Your task to perform on an android device: turn on showing notifications on the lock screen Image 0: 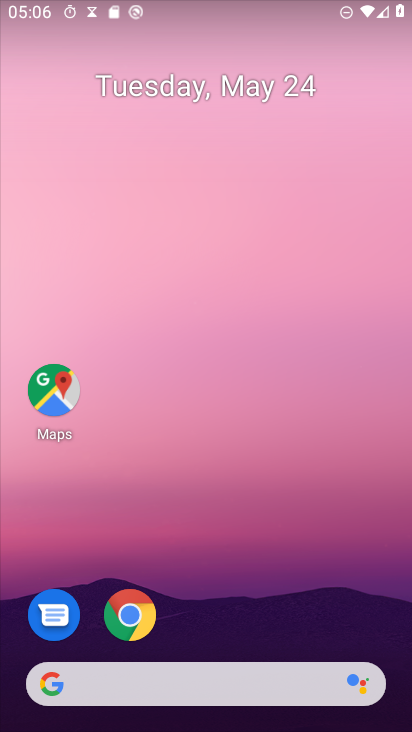
Step 0: drag from (177, 634) to (335, 96)
Your task to perform on an android device: turn on showing notifications on the lock screen Image 1: 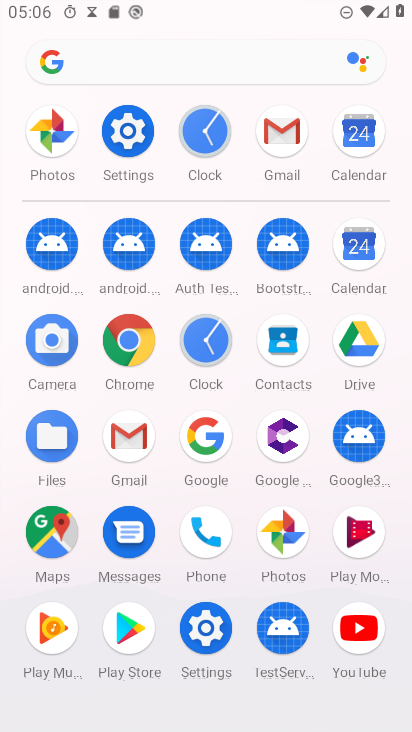
Step 1: click (114, 130)
Your task to perform on an android device: turn on showing notifications on the lock screen Image 2: 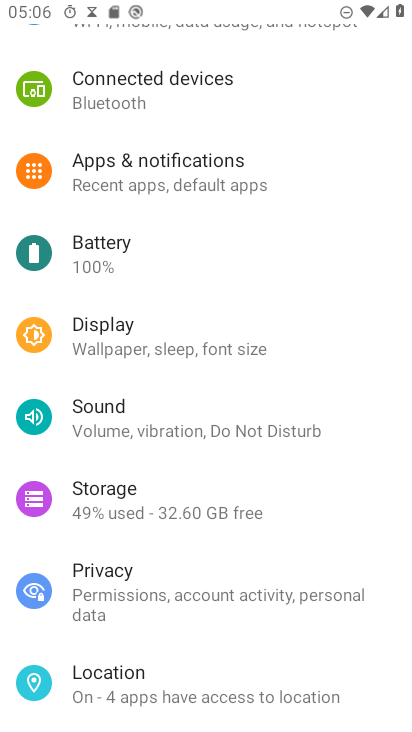
Step 2: click (196, 173)
Your task to perform on an android device: turn on showing notifications on the lock screen Image 3: 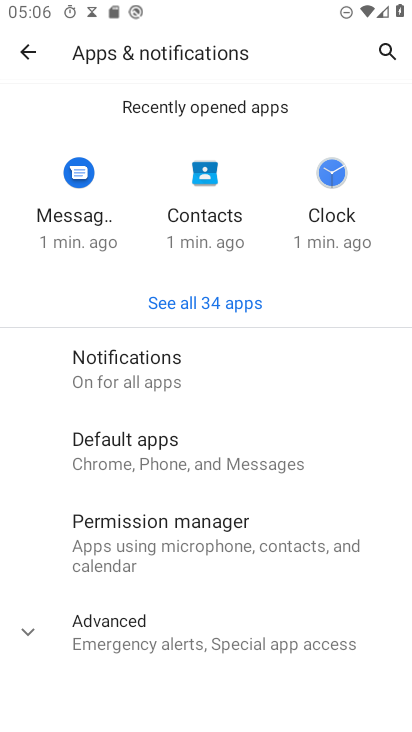
Step 3: click (162, 361)
Your task to perform on an android device: turn on showing notifications on the lock screen Image 4: 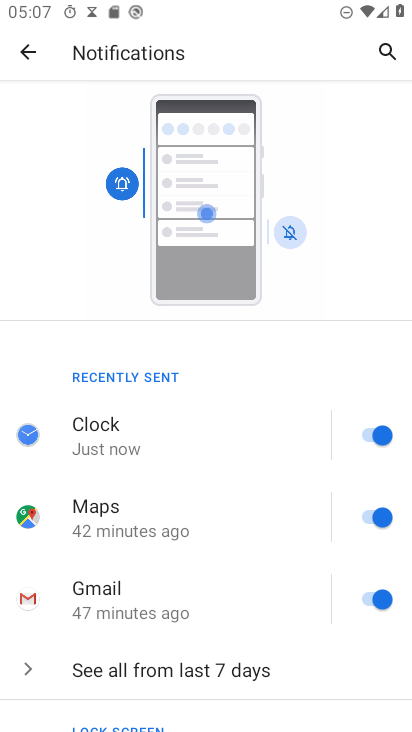
Step 4: drag from (199, 566) to (272, 135)
Your task to perform on an android device: turn on showing notifications on the lock screen Image 5: 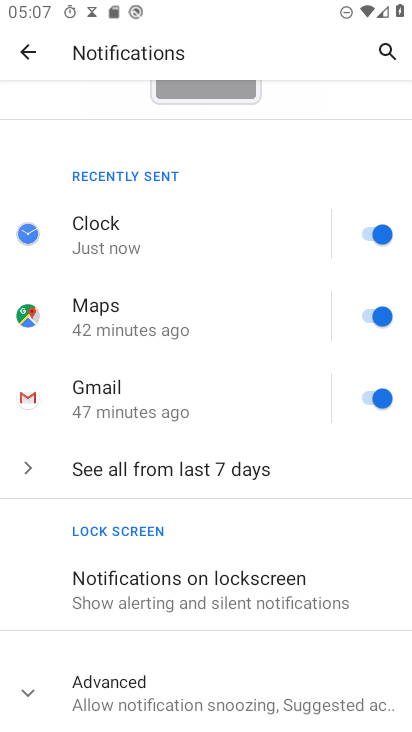
Step 5: click (153, 571)
Your task to perform on an android device: turn on showing notifications on the lock screen Image 6: 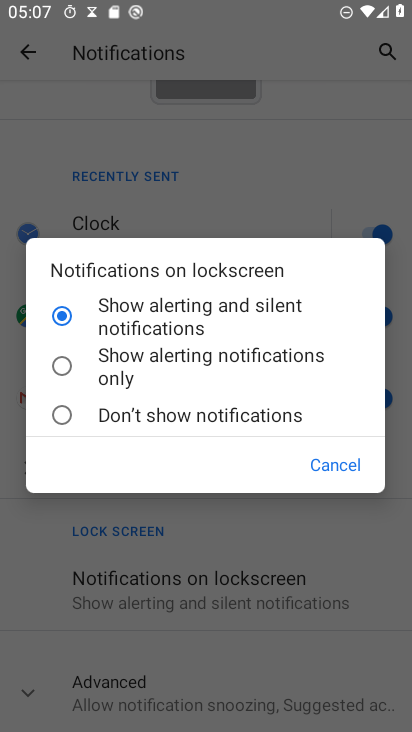
Step 6: click (61, 315)
Your task to perform on an android device: turn on showing notifications on the lock screen Image 7: 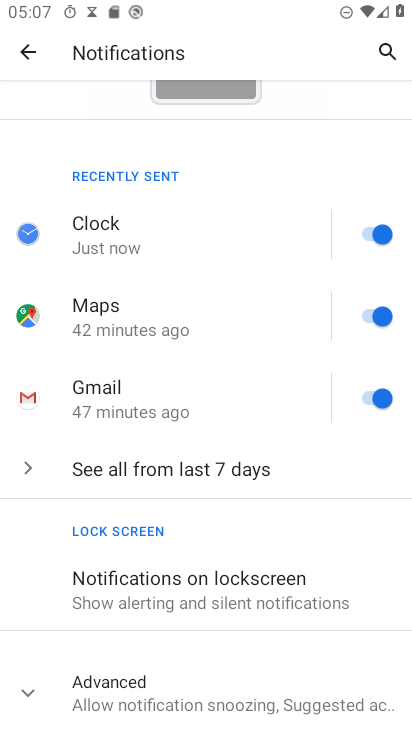
Step 7: task complete